Your task to perform on an android device: toggle notification dots Image 0: 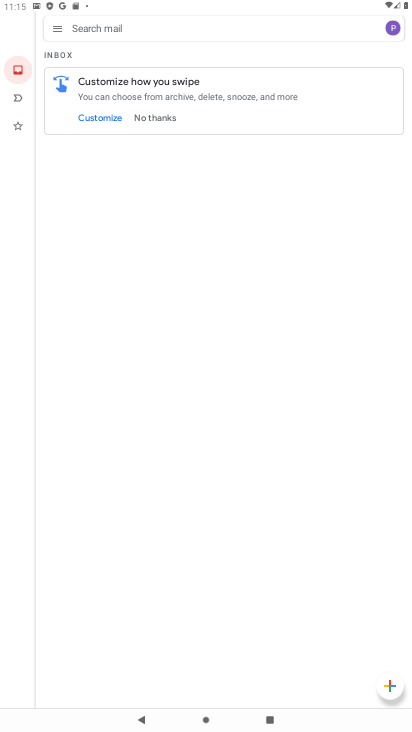
Step 0: press home button
Your task to perform on an android device: toggle notification dots Image 1: 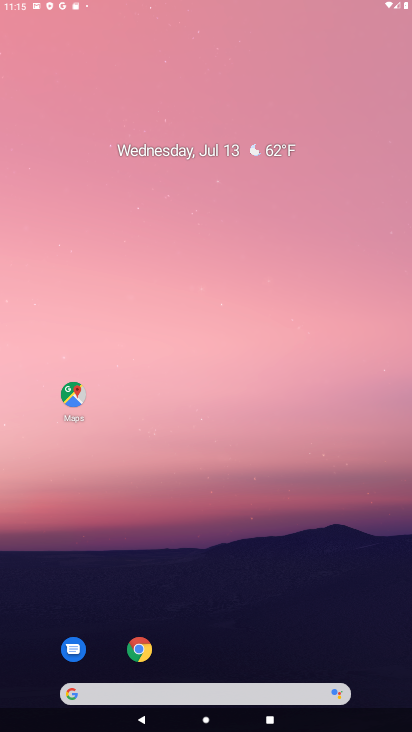
Step 1: drag from (385, 671) to (288, 47)
Your task to perform on an android device: toggle notification dots Image 2: 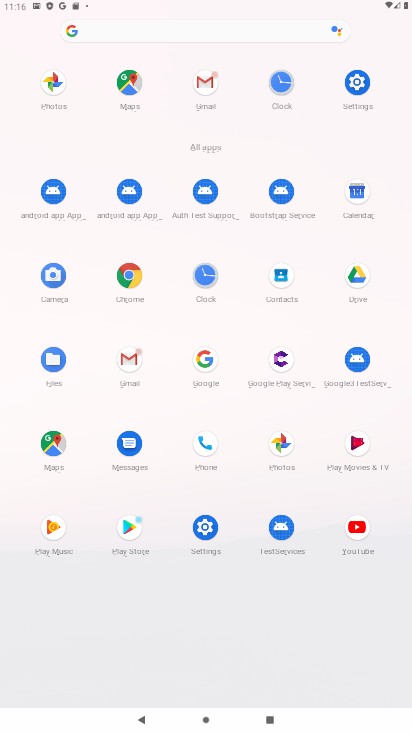
Step 2: click (210, 524)
Your task to perform on an android device: toggle notification dots Image 3: 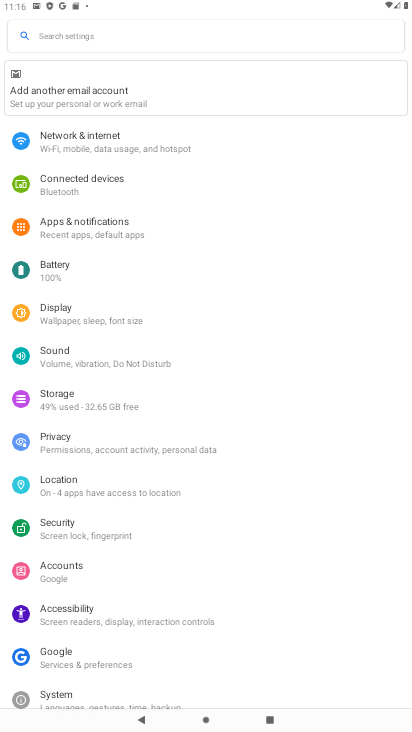
Step 3: click (106, 236)
Your task to perform on an android device: toggle notification dots Image 4: 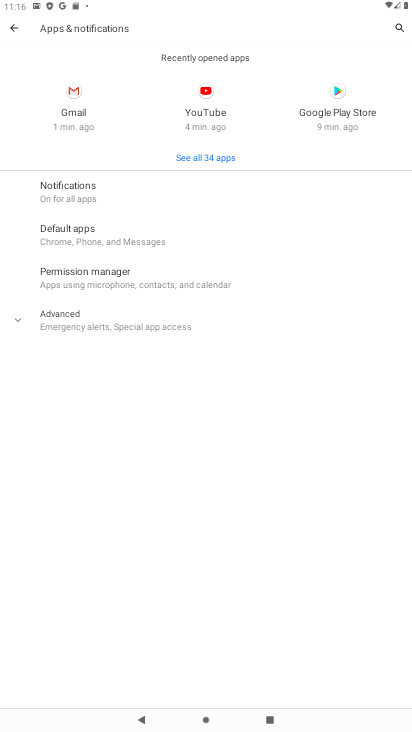
Step 4: click (119, 177)
Your task to perform on an android device: toggle notification dots Image 5: 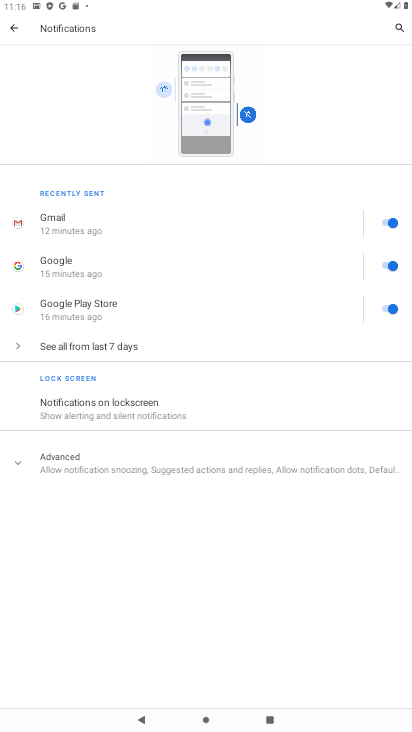
Step 5: click (36, 471)
Your task to perform on an android device: toggle notification dots Image 6: 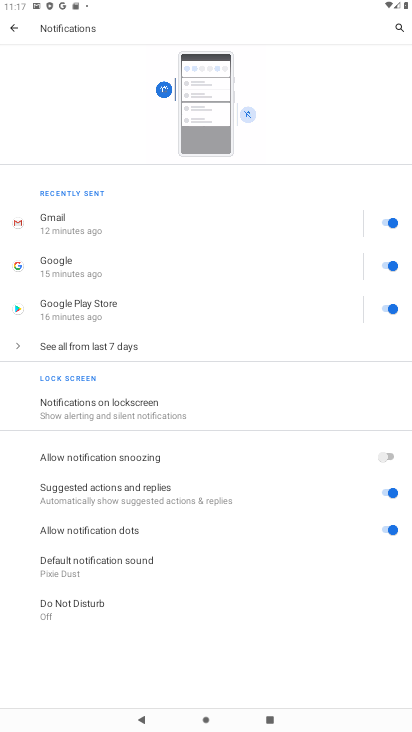
Step 6: click (122, 539)
Your task to perform on an android device: toggle notification dots Image 7: 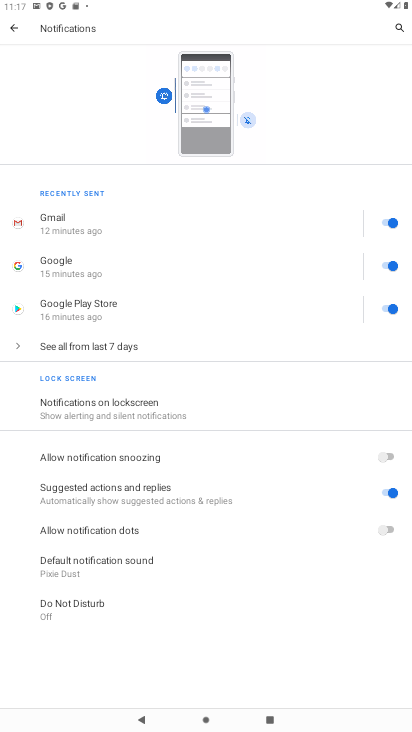
Step 7: task complete